Your task to perform on an android device: delete location history Image 0: 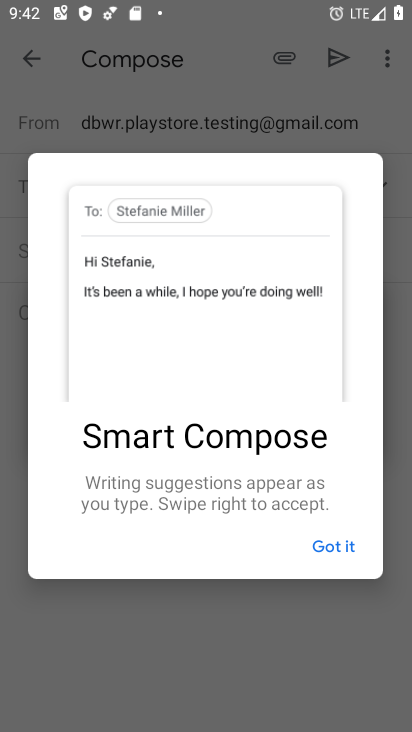
Step 0: press home button
Your task to perform on an android device: delete location history Image 1: 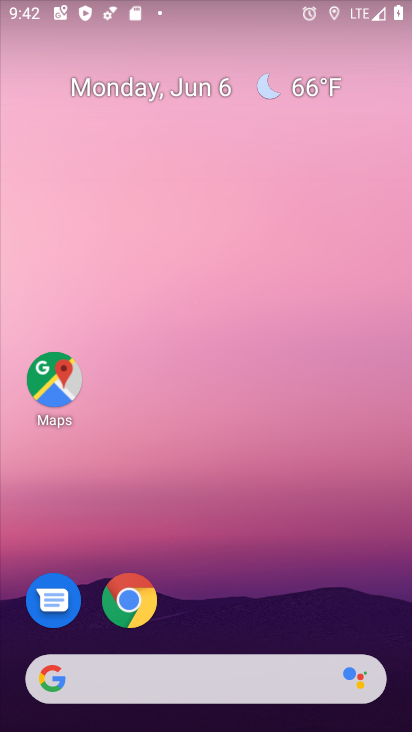
Step 1: drag from (88, 541) to (304, 180)
Your task to perform on an android device: delete location history Image 2: 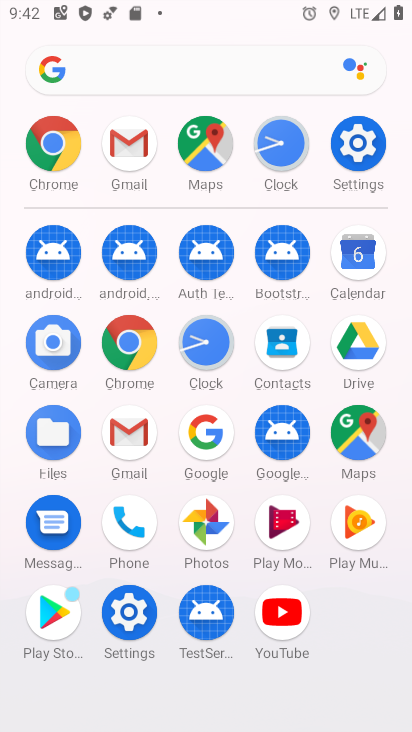
Step 2: click (347, 148)
Your task to perform on an android device: delete location history Image 3: 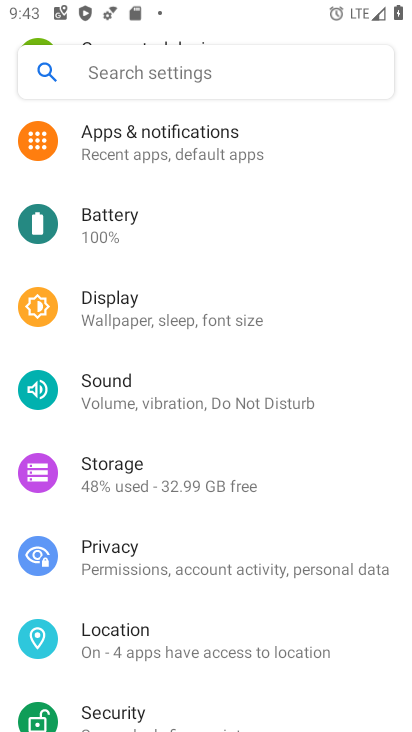
Step 3: click (216, 658)
Your task to perform on an android device: delete location history Image 4: 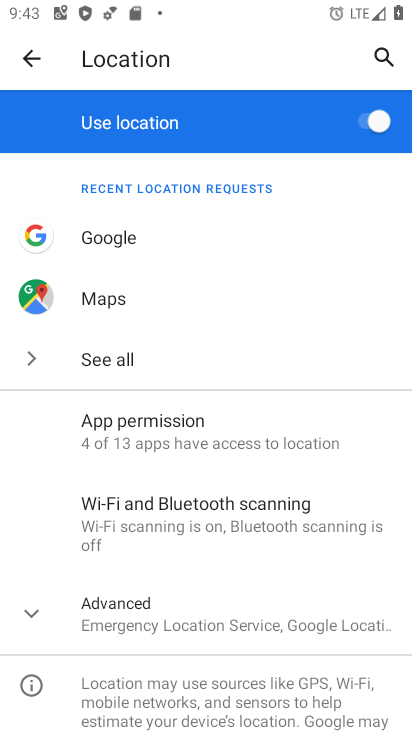
Step 4: click (224, 618)
Your task to perform on an android device: delete location history Image 5: 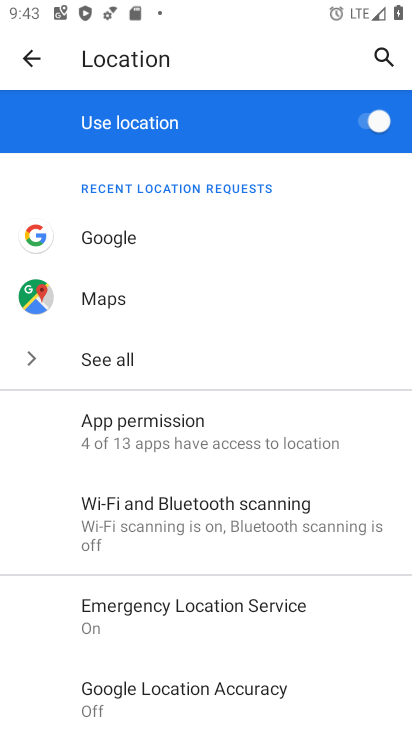
Step 5: drag from (9, 708) to (226, 256)
Your task to perform on an android device: delete location history Image 6: 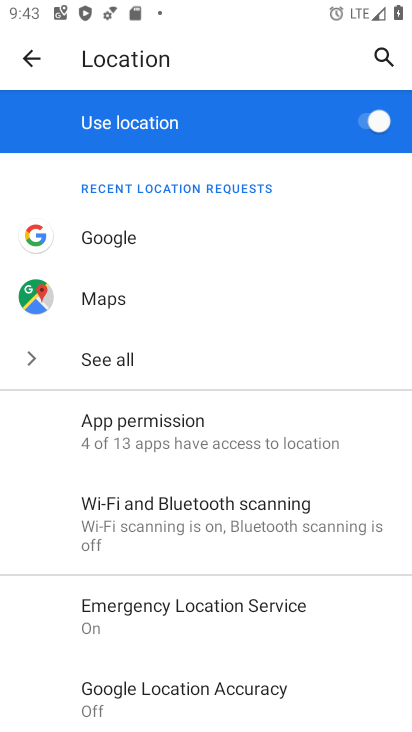
Step 6: drag from (10, 609) to (163, 198)
Your task to perform on an android device: delete location history Image 7: 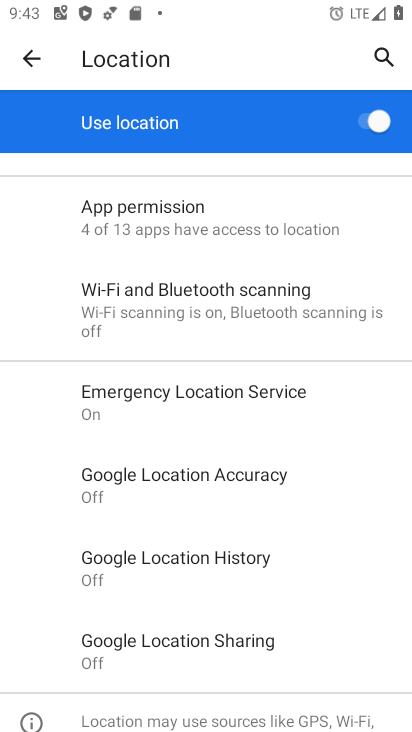
Step 7: click (120, 573)
Your task to perform on an android device: delete location history Image 8: 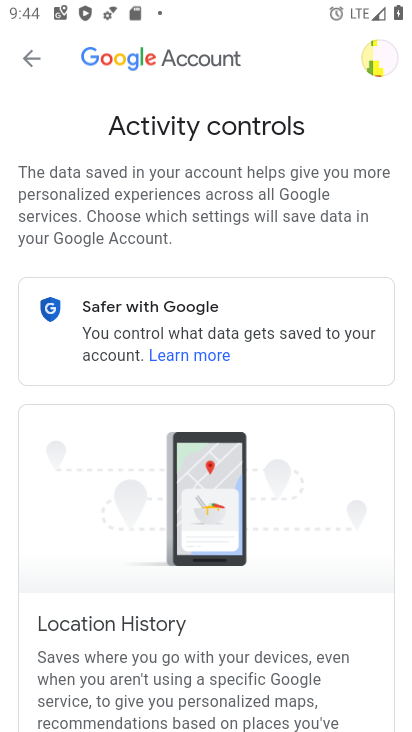
Step 8: drag from (25, 524) to (251, 246)
Your task to perform on an android device: delete location history Image 9: 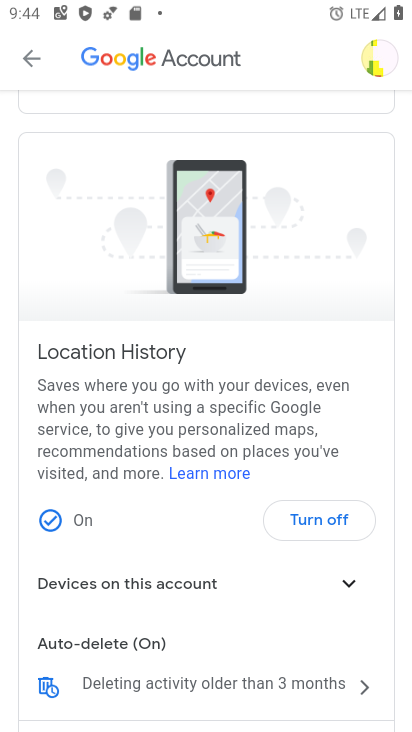
Step 9: drag from (48, 546) to (248, 280)
Your task to perform on an android device: delete location history Image 10: 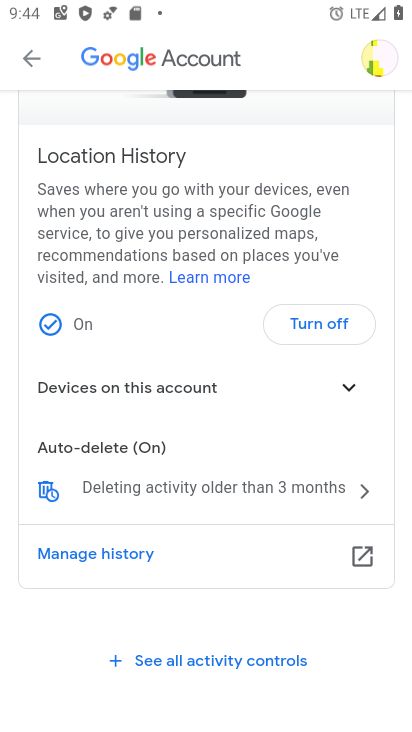
Step 10: click (228, 493)
Your task to perform on an android device: delete location history Image 11: 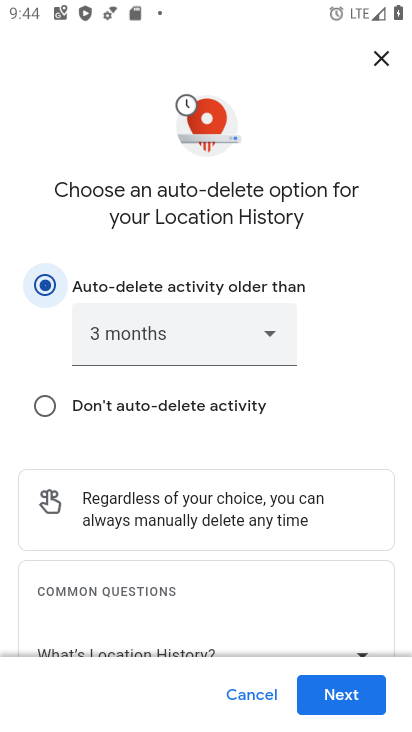
Step 11: click (350, 692)
Your task to perform on an android device: delete location history Image 12: 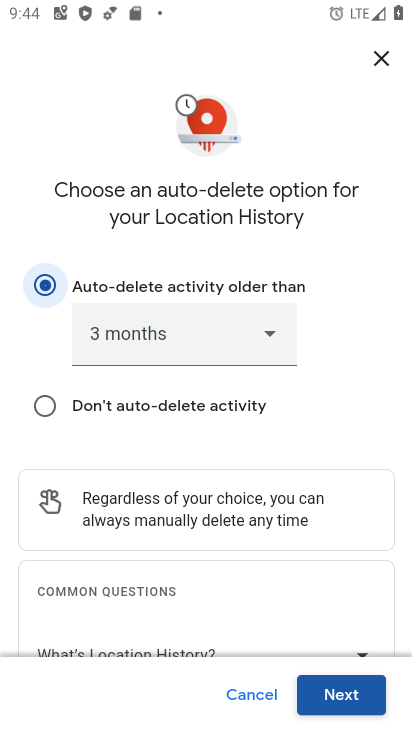
Step 12: click (341, 706)
Your task to perform on an android device: delete location history Image 13: 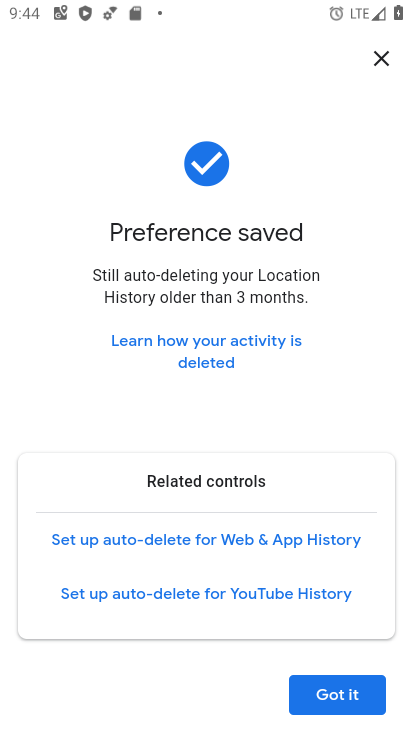
Step 13: click (349, 711)
Your task to perform on an android device: delete location history Image 14: 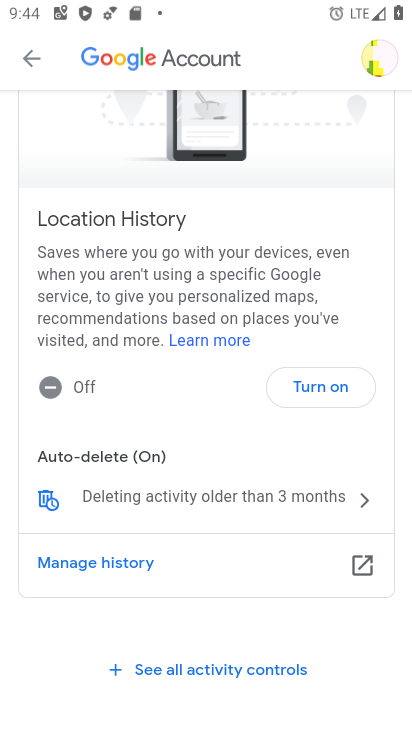
Step 14: task complete